Your task to perform on an android device: Set the phone to "Do not disturb". Image 0: 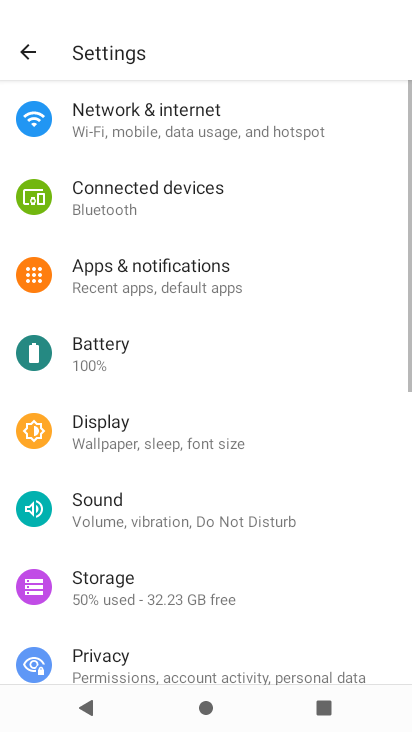
Step 0: press home button
Your task to perform on an android device: Set the phone to "Do not disturb". Image 1: 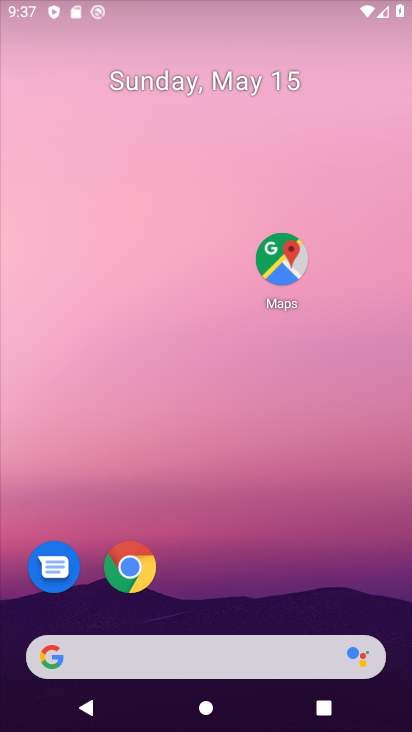
Step 1: drag from (200, 562) to (179, 73)
Your task to perform on an android device: Set the phone to "Do not disturb". Image 2: 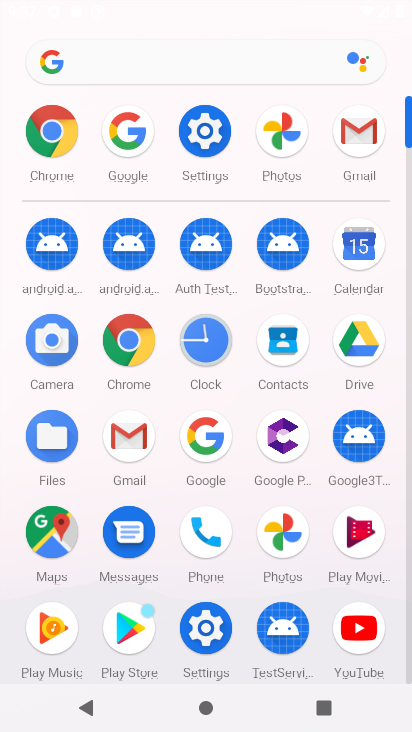
Step 2: click (204, 121)
Your task to perform on an android device: Set the phone to "Do not disturb". Image 3: 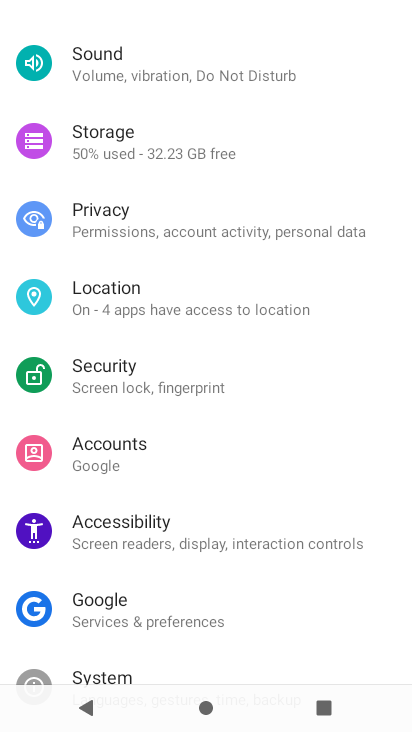
Step 3: drag from (192, 186) to (202, 426)
Your task to perform on an android device: Set the phone to "Do not disturb". Image 4: 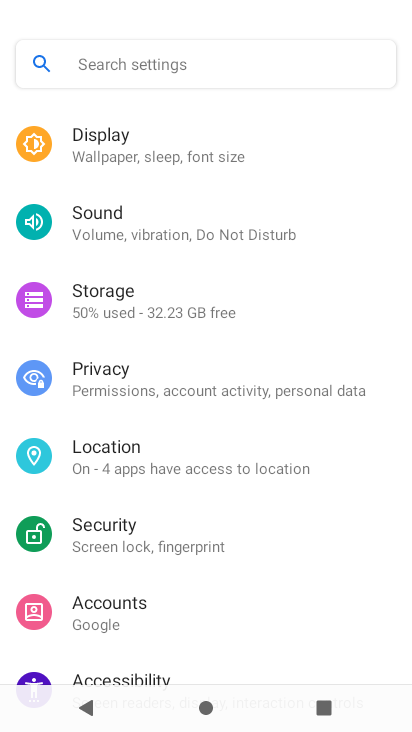
Step 4: click (142, 213)
Your task to perform on an android device: Set the phone to "Do not disturb". Image 5: 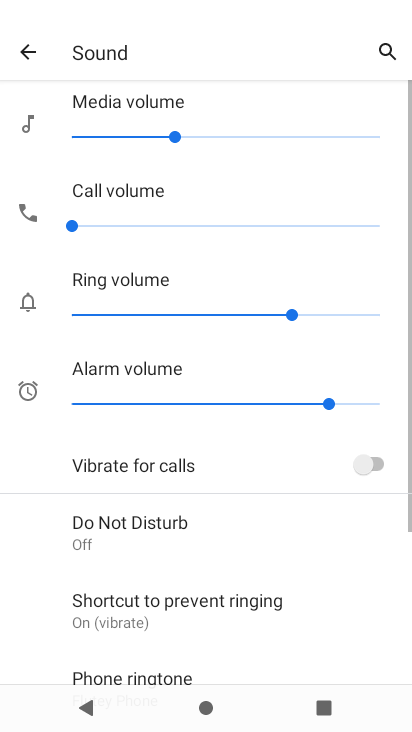
Step 5: click (140, 542)
Your task to perform on an android device: Set the phone to "Do not disturb". Image 6: 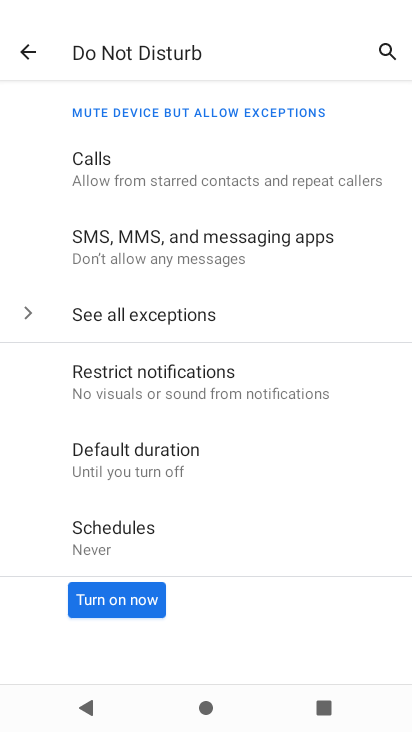
Step 6: click (105, 601)
Your task to perform on an android device: Set the phone to "Do not disturb". Image 7: 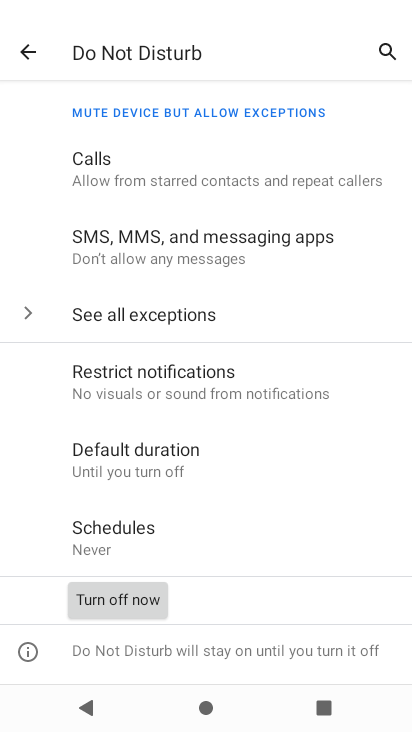
Step 7: task complete